Your task to perform on an android device: Open Chrome and go to the settings page Image 0: 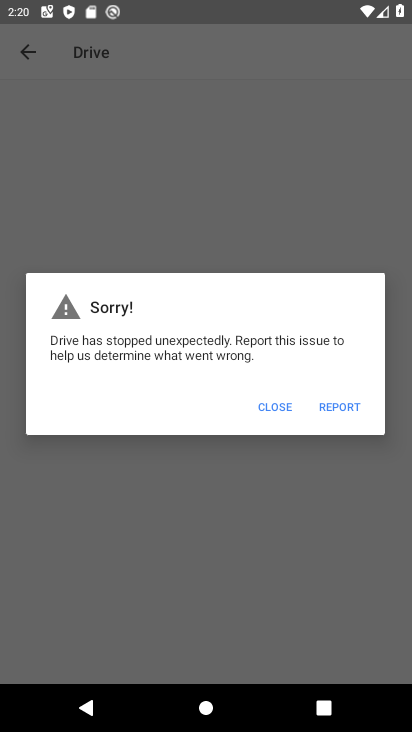
Step 0: press back button
Your task to perform on an android device: Open Chrome and go to the settings page Image 1: 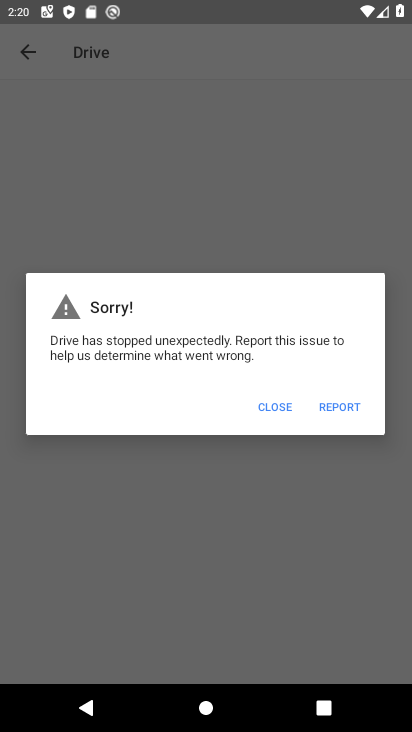
Step 1: press home button
Your task to perform on an android device: Open Chrome and go to the settings page Image 2: 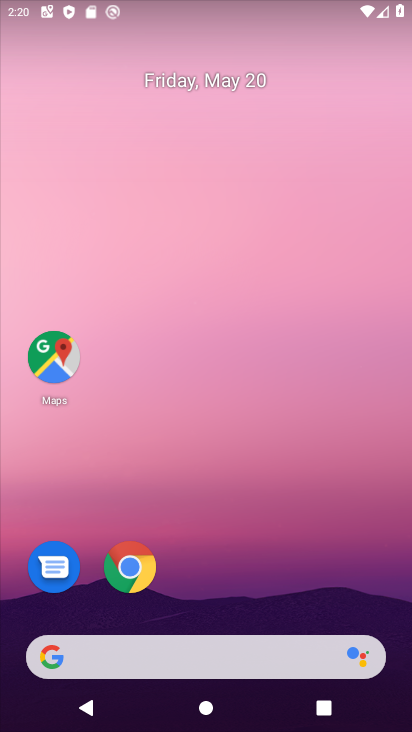
Step 2: drag from (227, 516) to (225, 21)
Your task to perform on an android device: Open Chrome and go to the settings page Image 3: 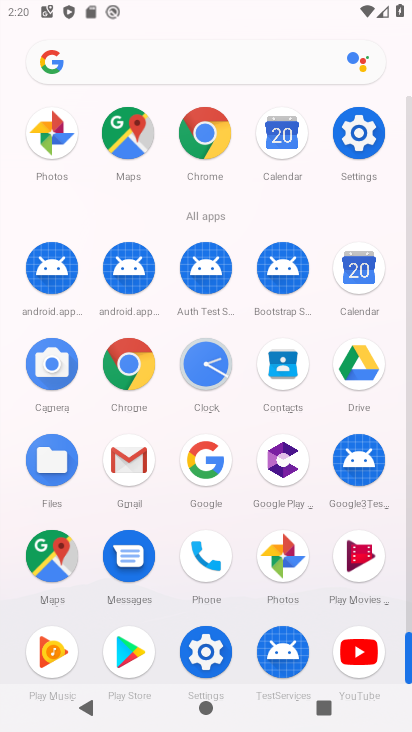
Step 3: drag from (12, 591) to (42, 255)
Your task to perform on an android device: Open Chrome and go to the settings page Image 4: 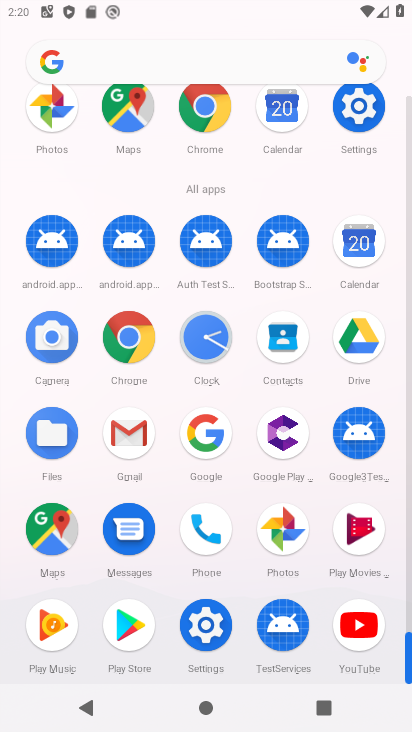
Step 4: click (124, 334)
Your task to perform on an android device: Open Chrome and go to the settings page Image 5: 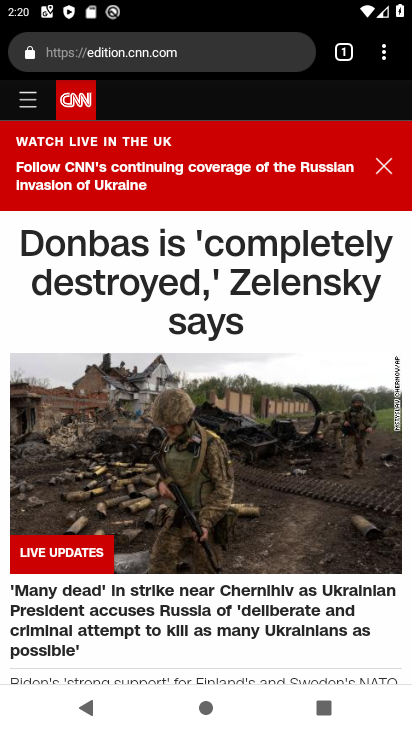
Step 5: task complete